Your task to perform on an android device: What's the weather going to be this weekend? Image 0: 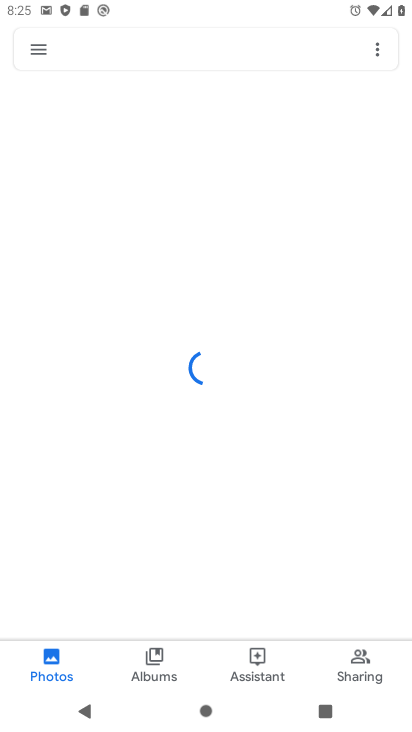
Step 0: press home button
Your task to perform on an android device: What's the weather going to be this weekend? Image 1: 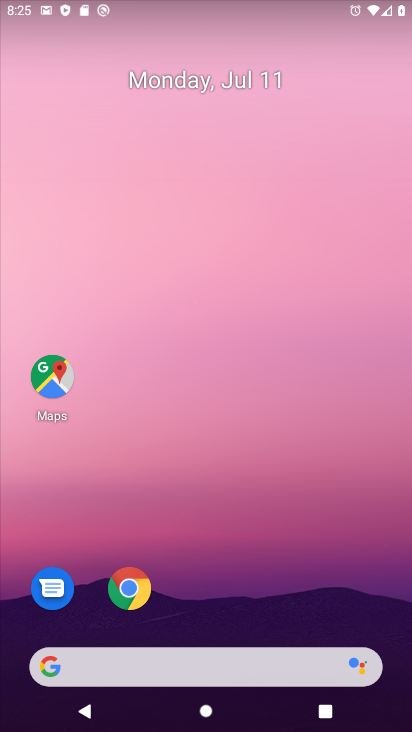
Step 1: click (202, 668)
Your task to perform on an android device: What's the weather going to be this weekend? Image 2: 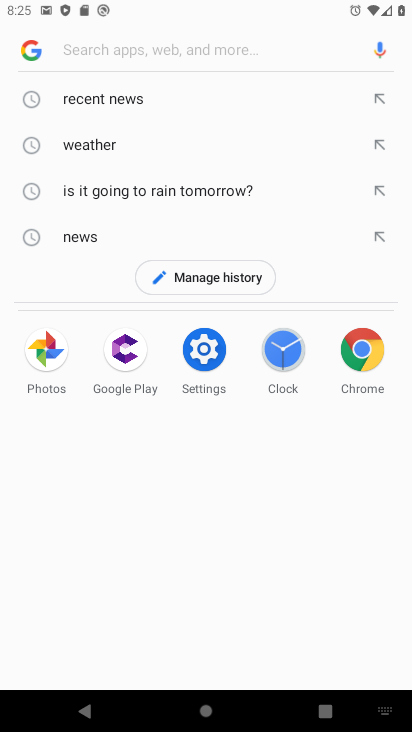
Step 2: click (63, 38)
Your task to perform on an android device: What's the weather going to be this weekend? Image 3: 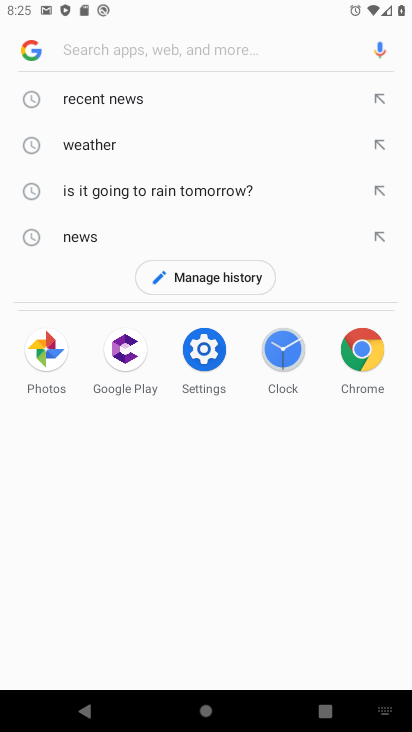
Step 3: click (63, 140)
Your task to perform on an android device: What's the weather going to be this weekend? Image 4: 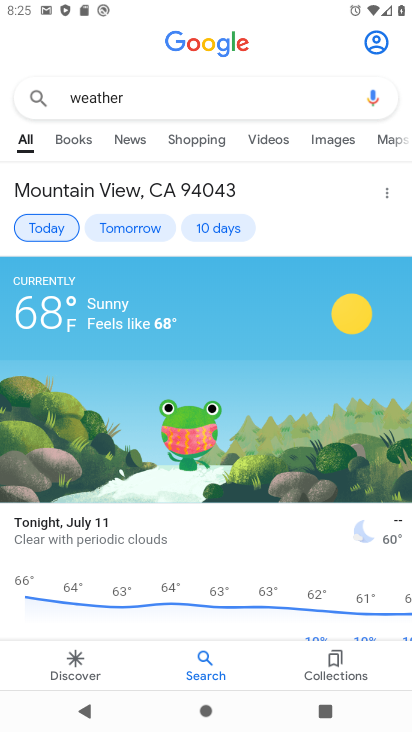
Step 4: click (221, 225)
Your task to perform on an android device: What's the weather going to be this weekend? Image 5: 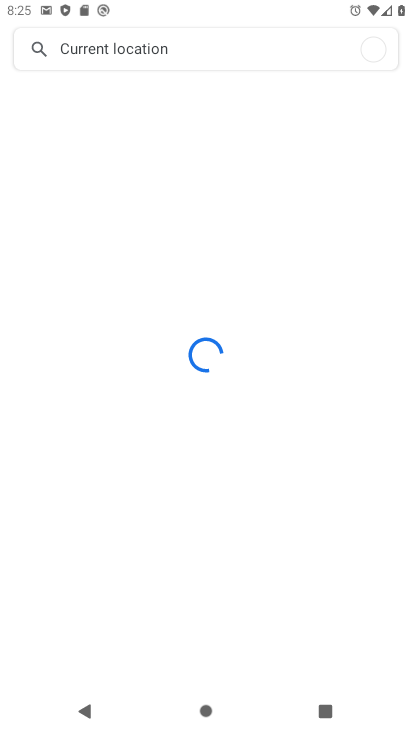
Step 5: click (217, 227)
Your task to perform on an android device: What's the weather going to be this weekend? Image 6: 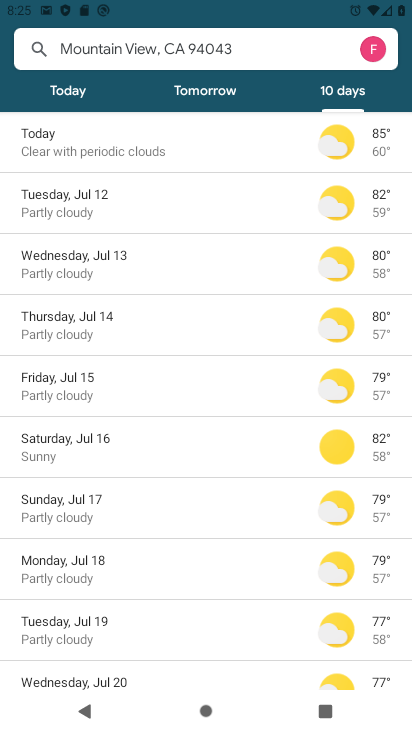
Step 6: click (161, 466)
Your task to perform on an android device: What's the weather going to be this weekend? Image 7: 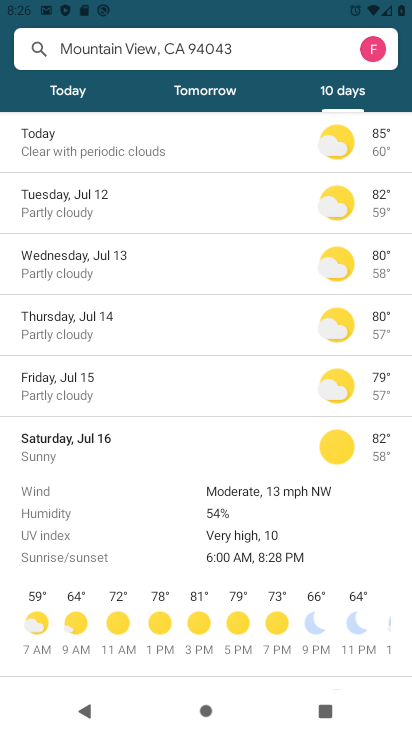
Step 7: task complete